Your task to perform on an android device: Search for Mexican restaurants on Maps Image 0: 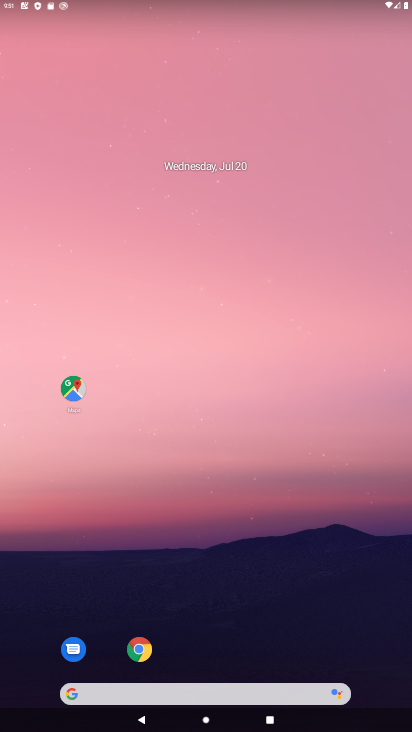
Step 0: click (75, 392)
Your task to perform on an android device: Search for Mexican restaurants on Maps Image 1: 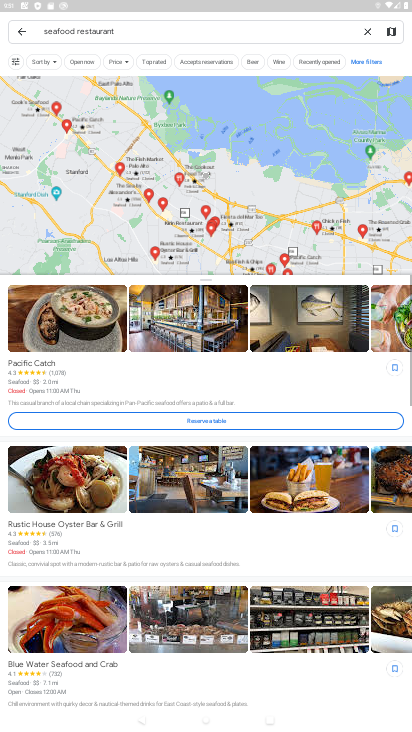
Step 1: click (152, 29)
Your task to perform on an android device: Search for Mexican restaurants on Maps Image 2: 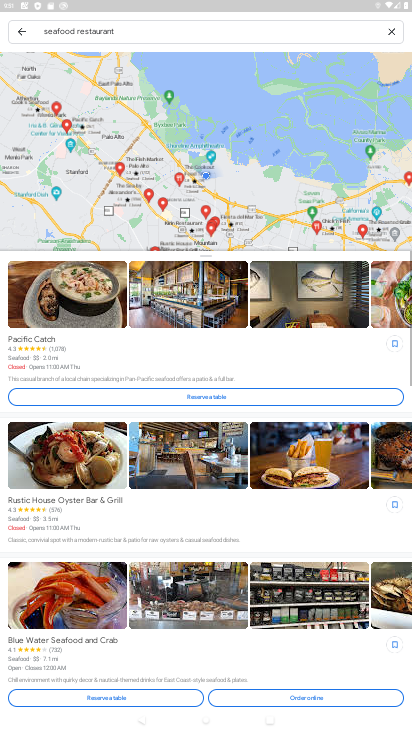
Step 2: click (361, 31)
Your task to perform on an android device: Search for Mexican restaurants on Maps Image 3: 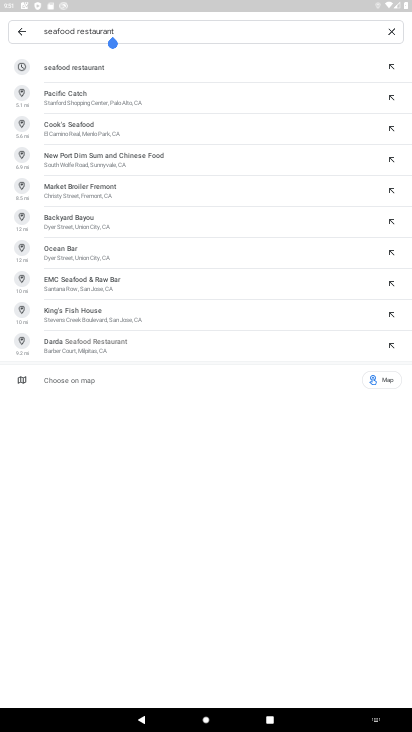
Step 3: click (394, 35)
Your task to perform on an android device: Search for Mexican restaurants on Maps Image 4: 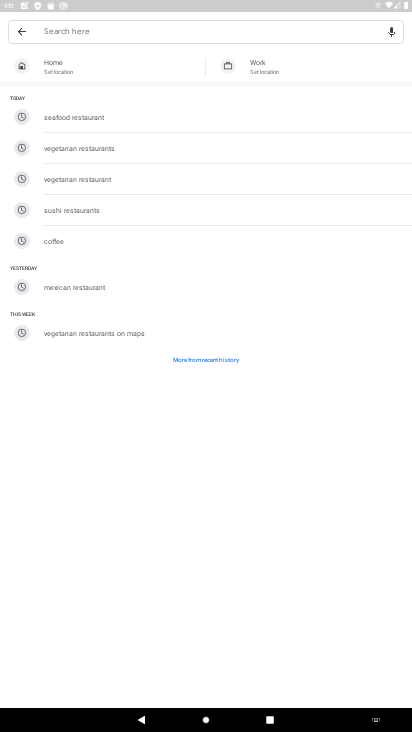
Step 4: click (82, 295)
Your task to perform on an android device: Search for Mexican restaurants on Maps Image 5: 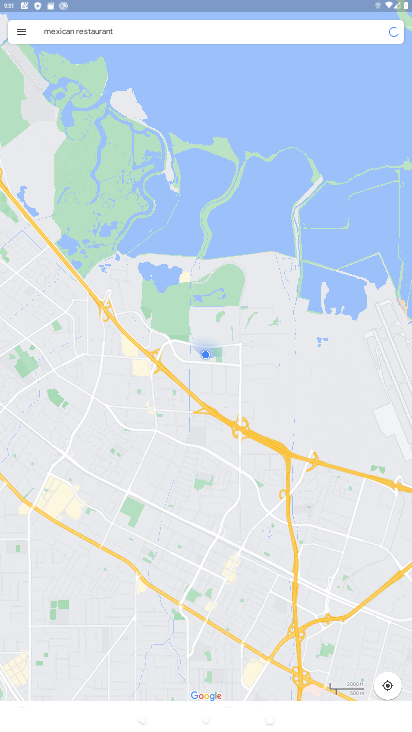
Step 5: task complete